Your task to perform on an android device: Go to calendar. Show me events next week Image 0: 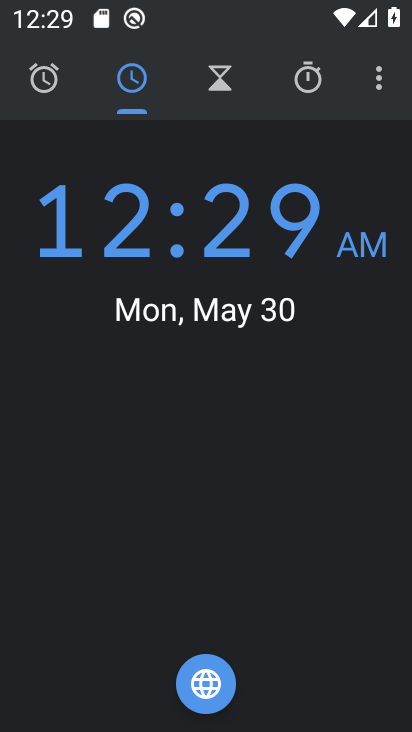
Step 0: press home button
Your task to perform on an android device: Go to calendar. Show me events next week Image 1: 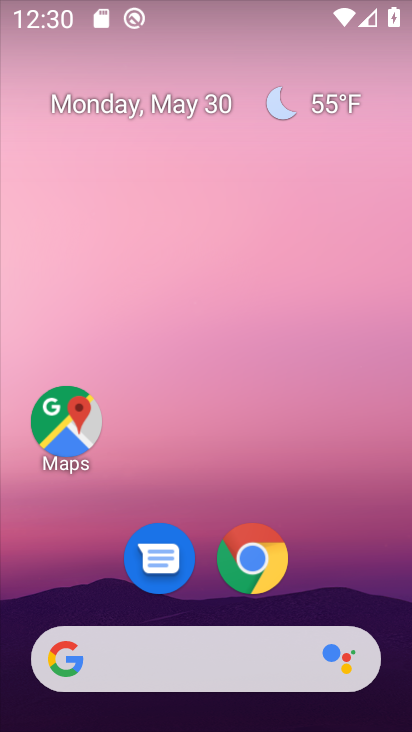
Step 1: drag from (336, 542) to (278, 12)
Your task to perform on an android device: Go to calendar. Show me events next week Image 2: 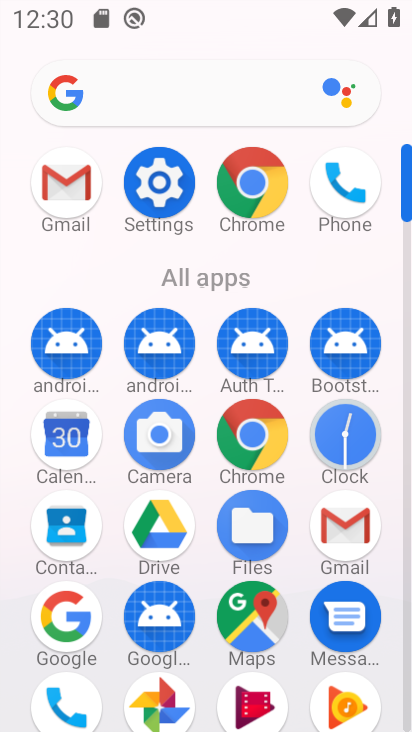
Step 2: click (78, 481)
Your task to perform on an android device: Go to calendar. Show me events next week Image 3: 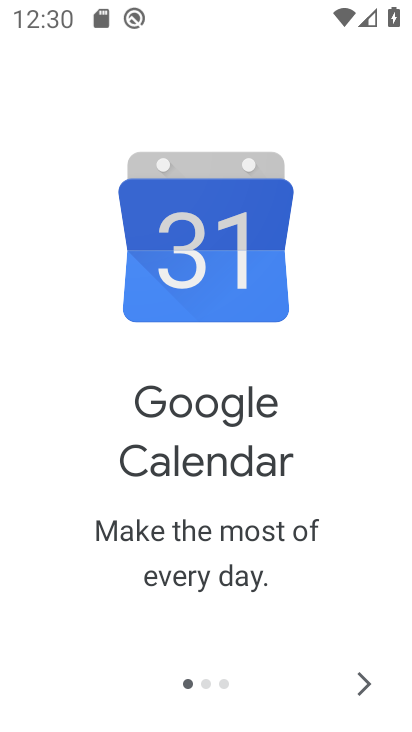
Step 3: click (369, 689)
Your task to perform on an android device: Go to calendar. Show me events next week Image 4: 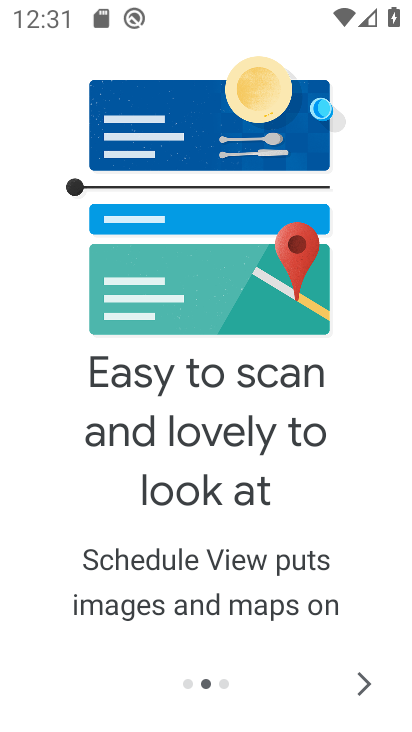
Step 4: click (366, 685)
Your task to perform on an android device: Go to calendar. Show me events next week Image 5: 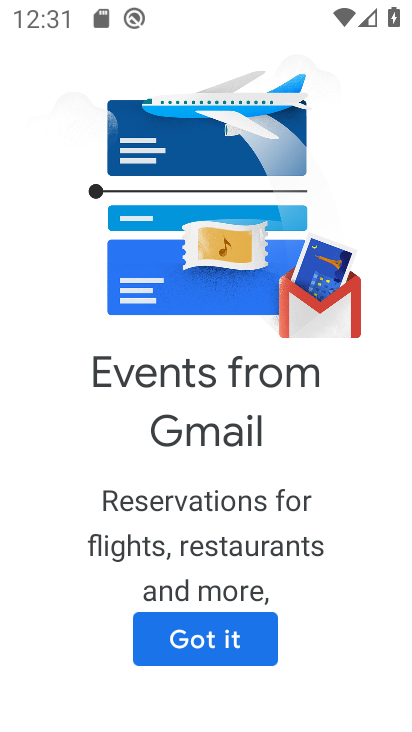
Step 5: click (229, 634)
Your task to perform on an android device: Go to calendar. Show me events next week Image 6: 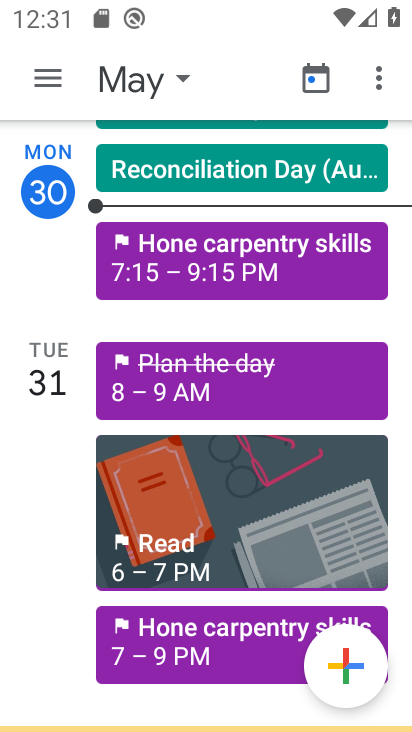
Step 6: click (130, 72)
Your task to perform on an android device: Go to calendar. Show me events next week Image 7: 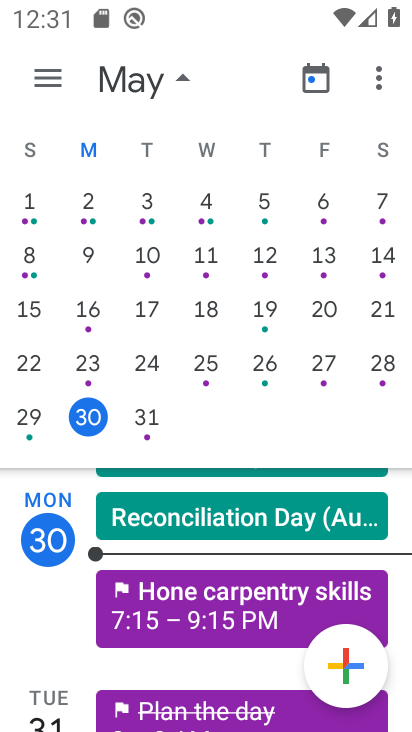
Step 7: drag from (308, 357) to (5, 174)
Your task to perform on an android device: Go to calendar. Show me events next week Image 8: 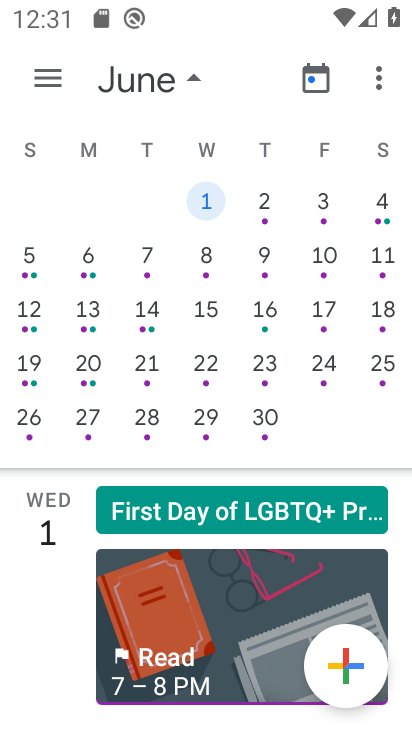
Step 8: click (92, 262)
Your task to perform on an android device: Go to calendar. Show me events next week Image 9: 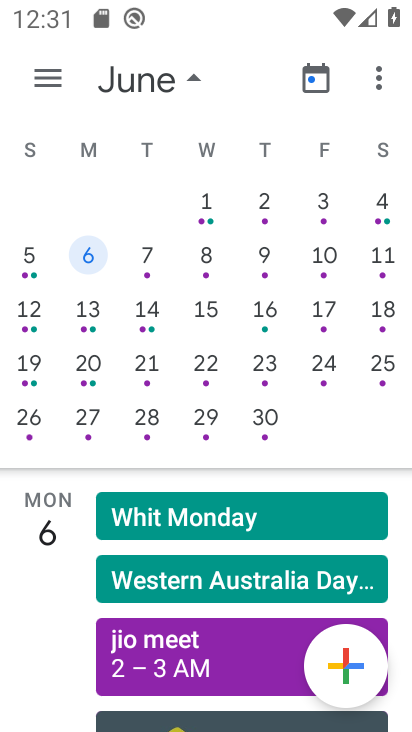
Step 9: task complete